Your task to perform on an android device: Show me popular videos on Youtube Image 0: 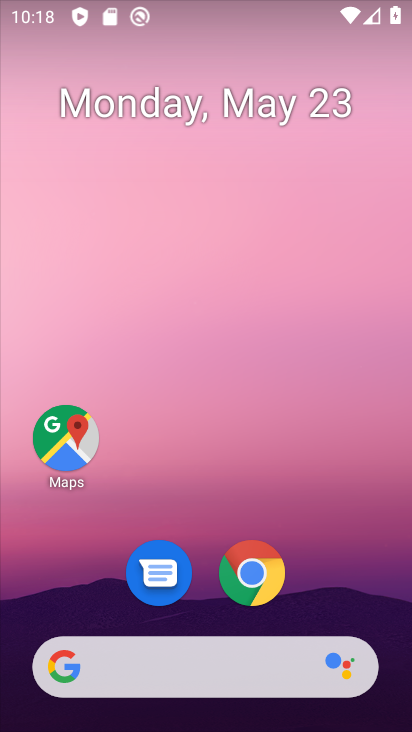
Step 0: drag from (297, 514) to (229, 6)
Your task to perform on an android device: Show me popular videos on Youtube Image 1: 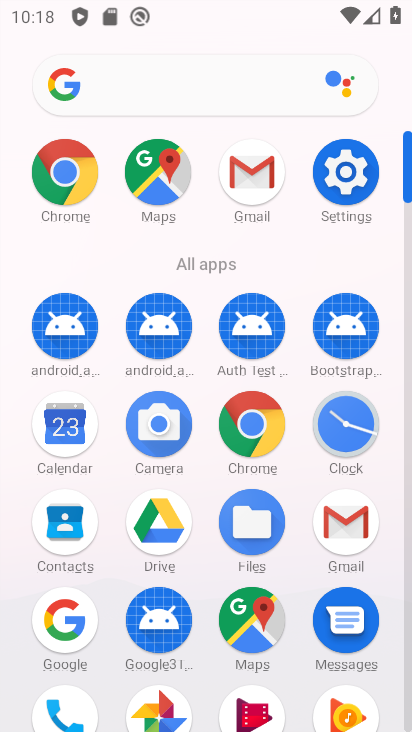
Step 1: drag from (10, 578) to (9, 243)
Your task to perform on an android device: Show me popular videos on Youtube Image 2: 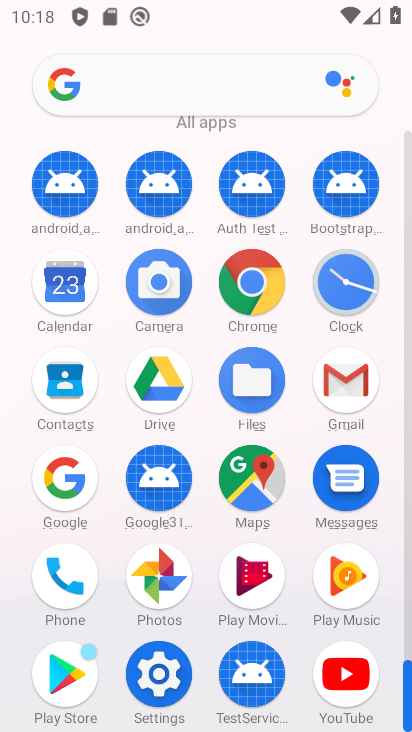
Step 2: click (342, 669)
Your task to perform on an android device: Show me popular videos on Youtube Image 3: 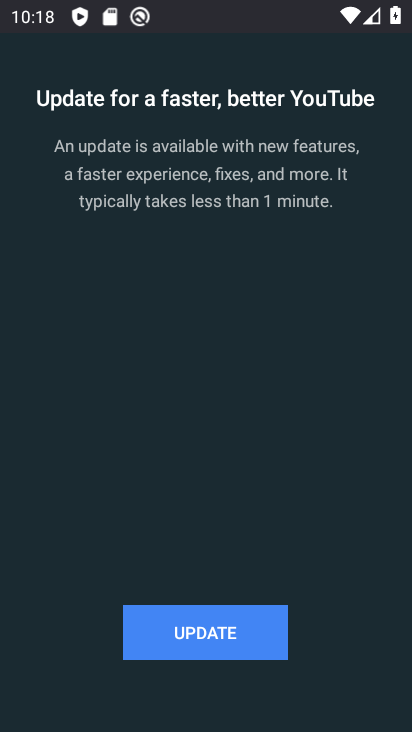
Step 3: click (237, 644)
Your task to perform on an android device: Show me popular videos on Youtube Image 4: 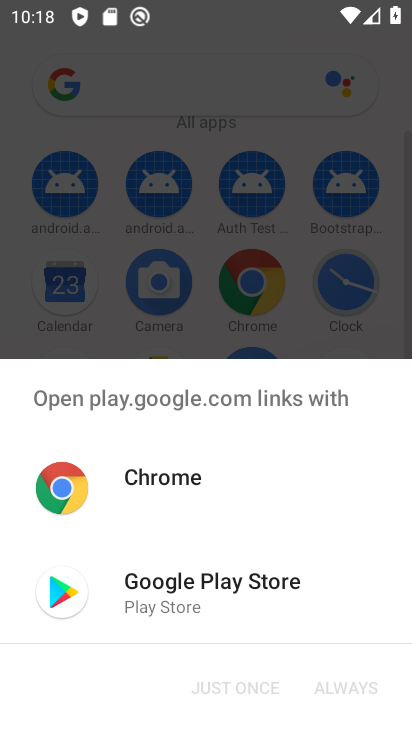
Step 4: click (188, 592)
Your task to perform on an android device: Show me popular videos on Youtube Image 5: 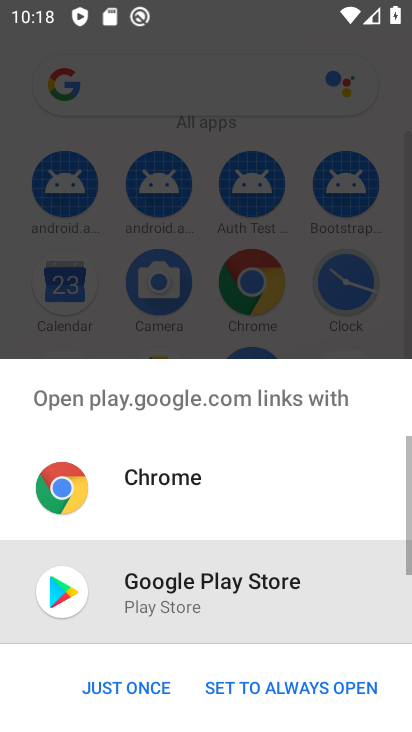
Step 5: click (135, 685)
Your task to perform on an android device: Show me popular videos on Youtube Image 6: 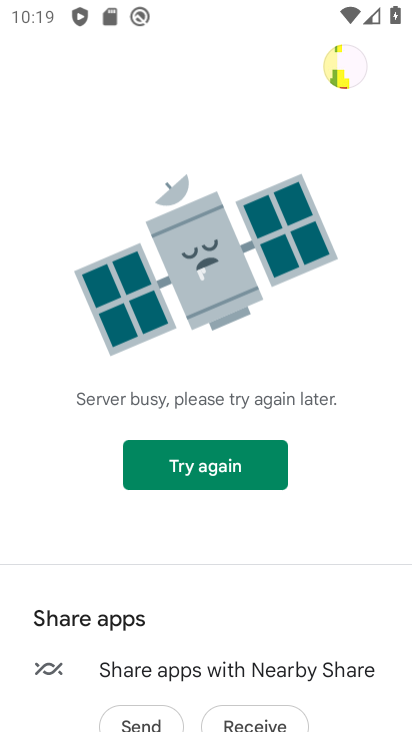
Step 6: task complete